Your task to perform on an android device: Open internet settings Image 0: 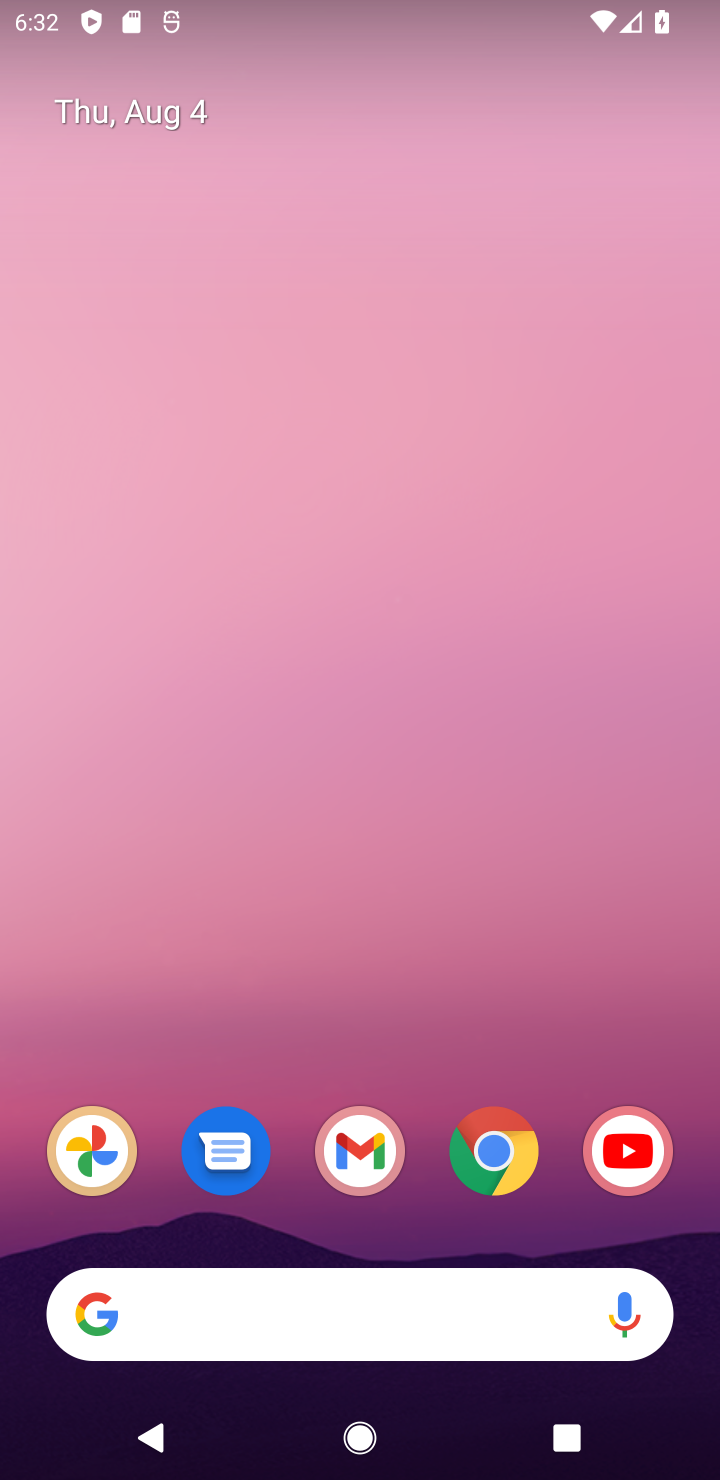
Step 0: drag from (387, 1236) to (319, 187)
Your task to perform on an android device: Open internet settings Image 1: 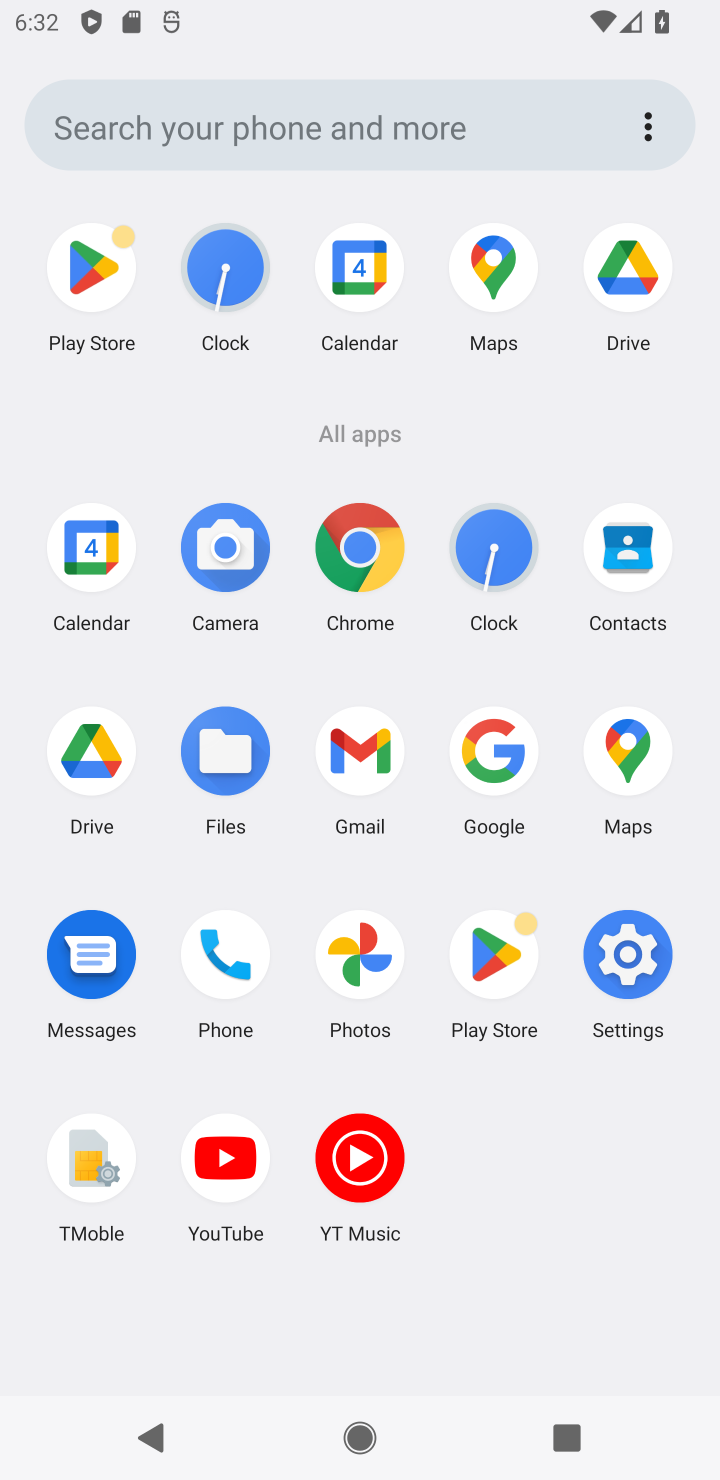
Step 1: click (641, 988)
Your task to perform on an android device: Open internet settings Image 2: 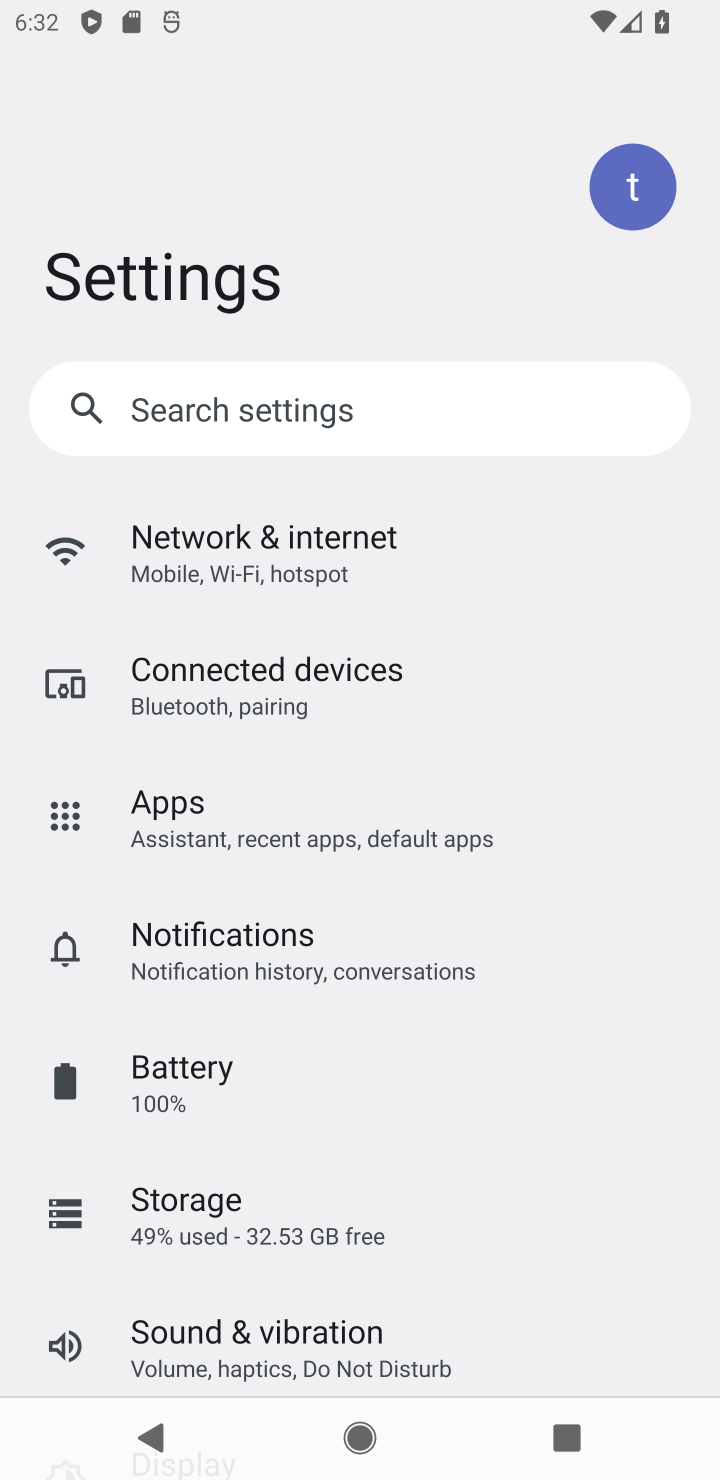
Step 2: click (302, 550)
Your task to perform on an android device: Open internet settings Image 3: 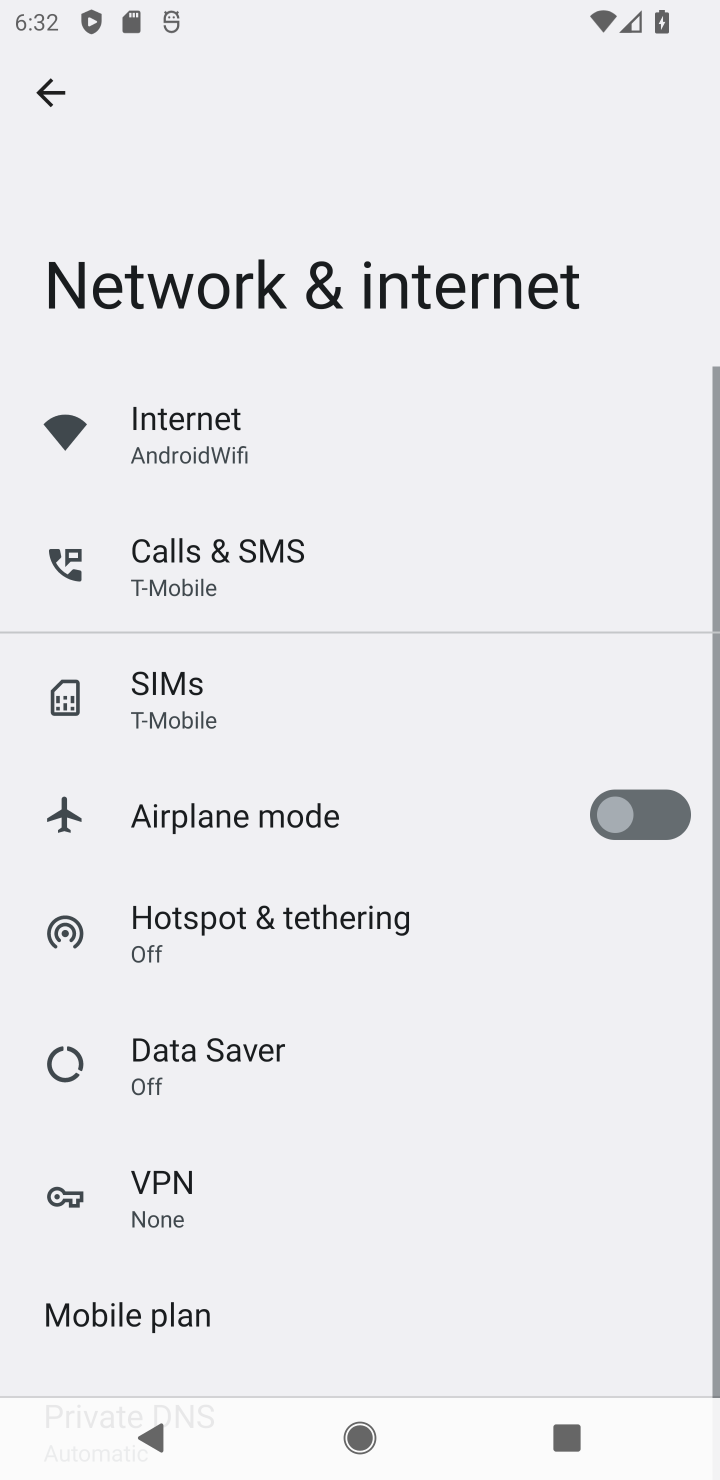
Step 3: click (268, 445)
Your task to perform on an android device: Open internet settings Image 4: 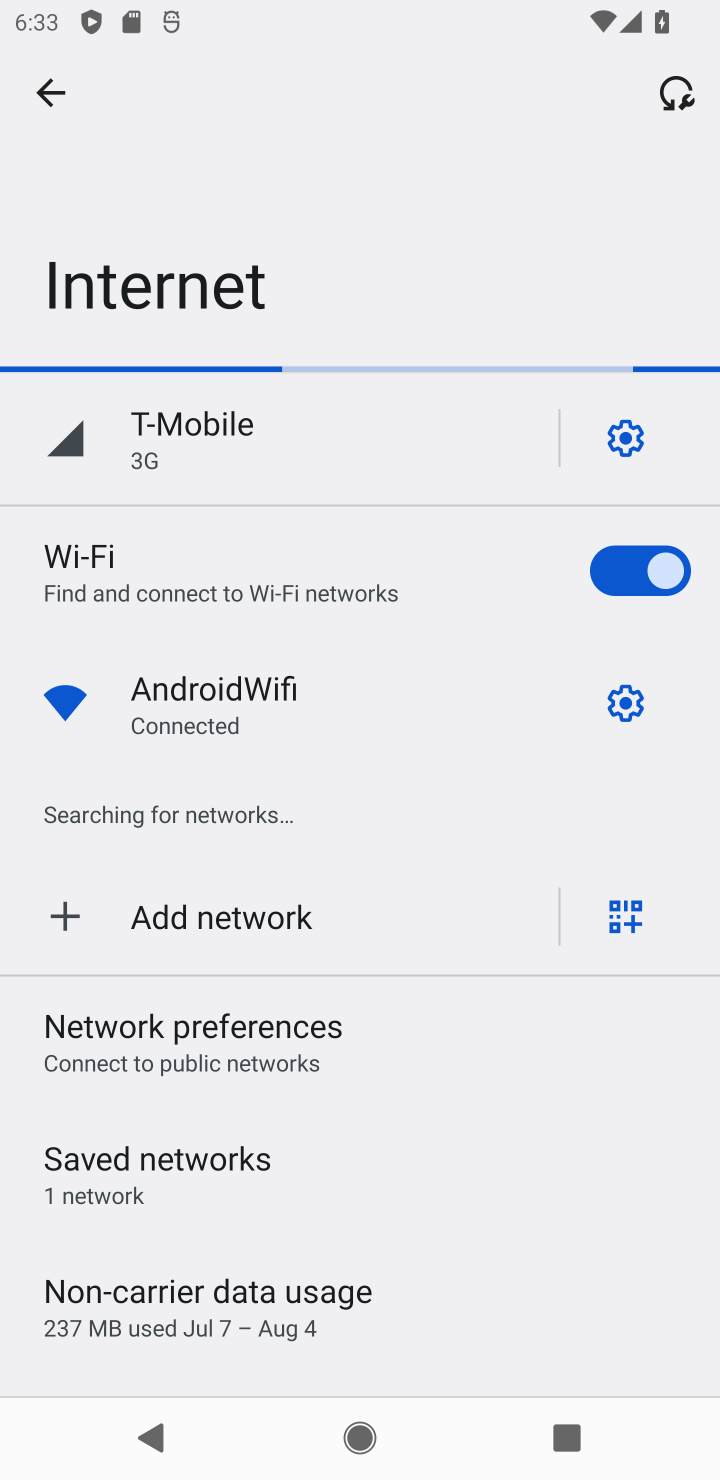
Step 4: task complete